Your task to perform on an android device: find photos in the google photos app Image 0: 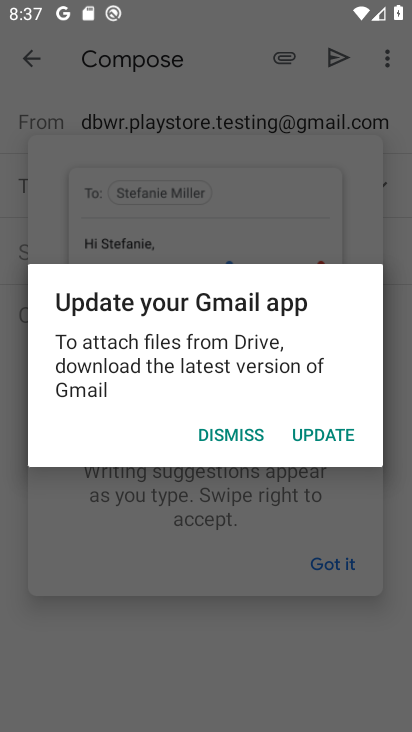
Step 0: click (218, 426)
Your task to perform on an android device: find photos in the google photos app Image 1: 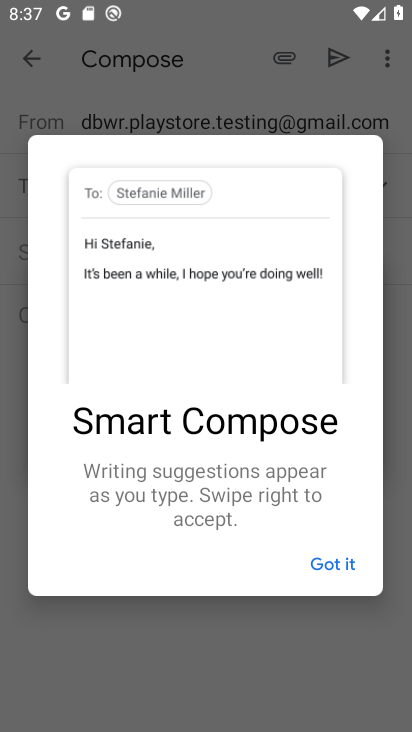
Step 1: press back button
Your task to perform on an android device: find photos in the google photos app Image 2: 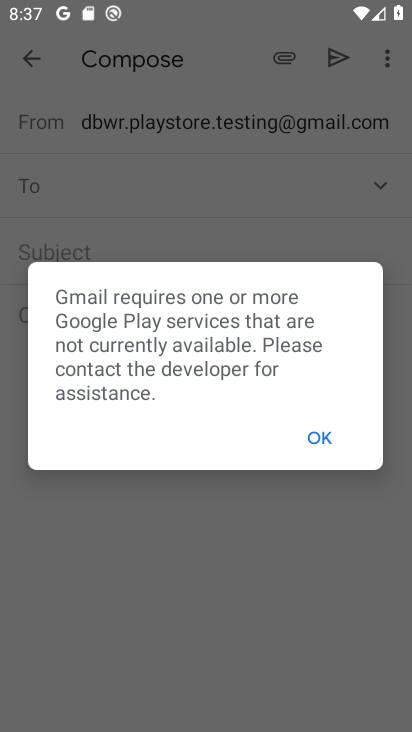
Step 2: click (331, 438)
Your task to perform on an android device: find photos in the google photos app Image 3: 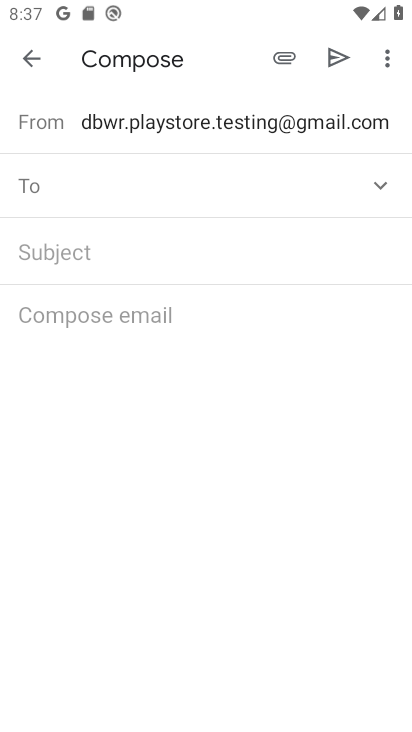
Step 3: press back button
Your task to perform on an android device: find photos in the google photos app Image 4: 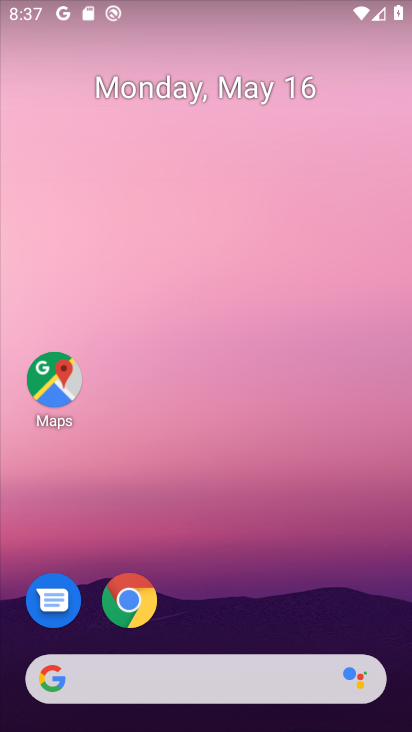
Step 4: drag from (286, 644) to (202, 246)
Your task to perform on an android device: find photos in the google photos app Image 5: 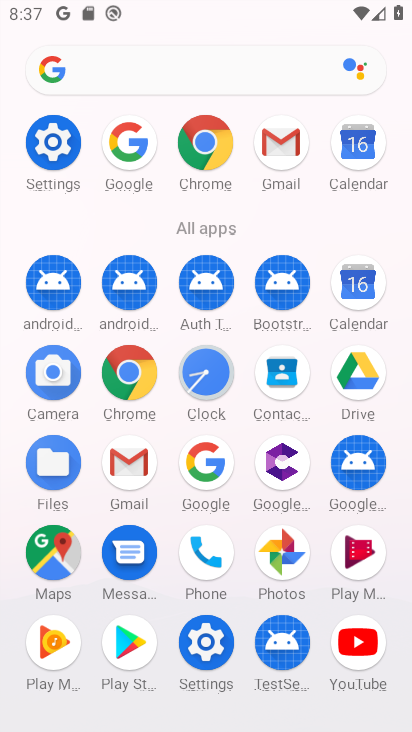
Step 5: click (293, 564)
Your task to perform on an android device: find photos in the google photos app Image 6: 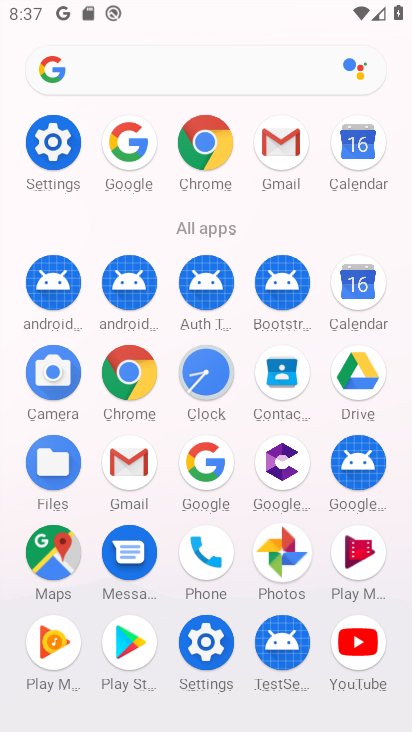
Step 6: click (293, 564)
Your task to perform on an android device: find photos in the google photos app Image 7: 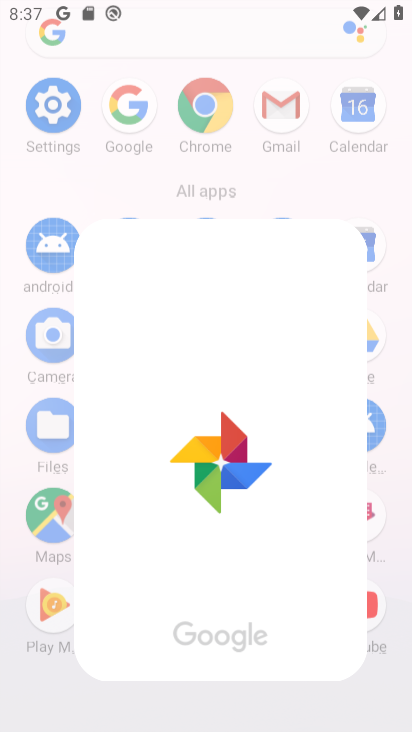
Step 7: click (293, 564)
Your task to perform on an android device: find photos in the google photos app Image 8: 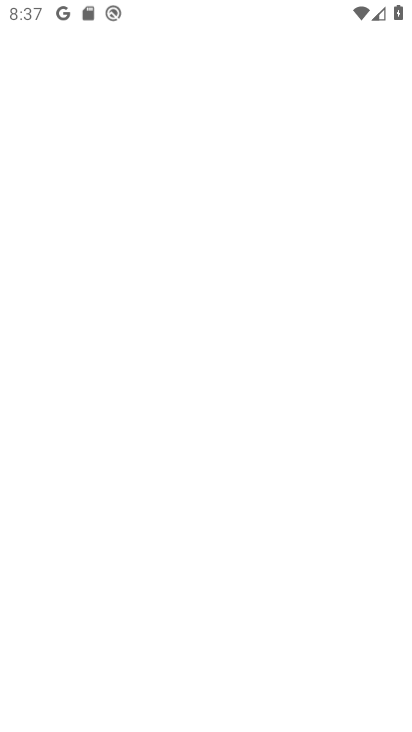
Step 8: click (293, 561)
Your task to perform on an android device: find photos in the google photos app Image 9: 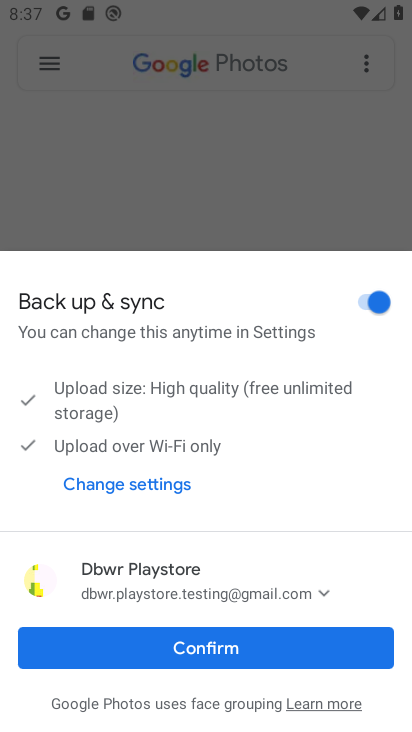
Step 9: click (207, 650)
Your task to perform on an android device: find photos in the google photos app Image 10: 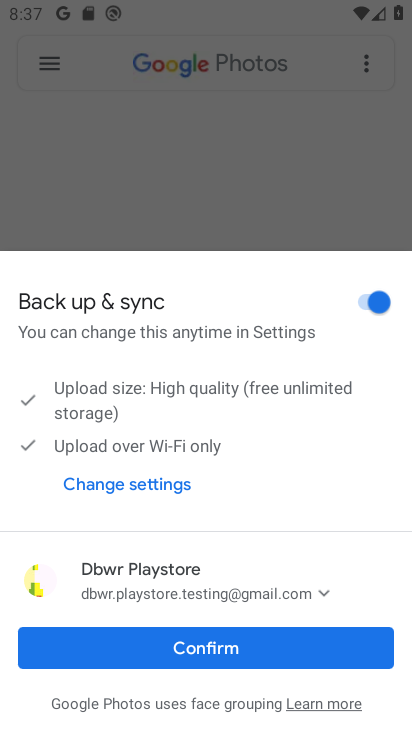
Step 10: click (207, 650)
Your task to perform on an android device: find photos in the google photos app Image 11: 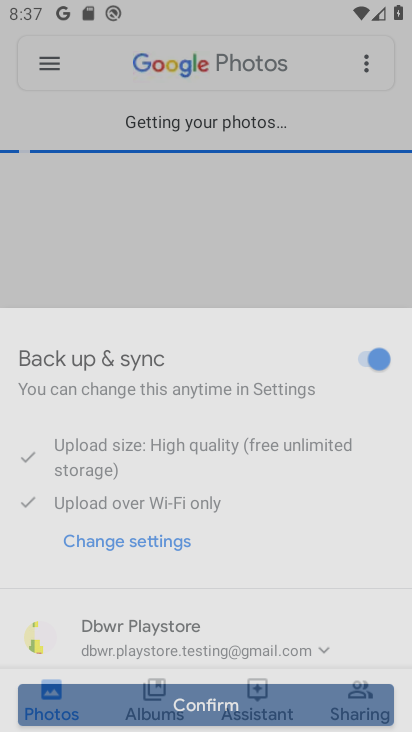
Step 11: click (207, 649)
Your task to perform on an android device: find photos in the google photos app Image 12: 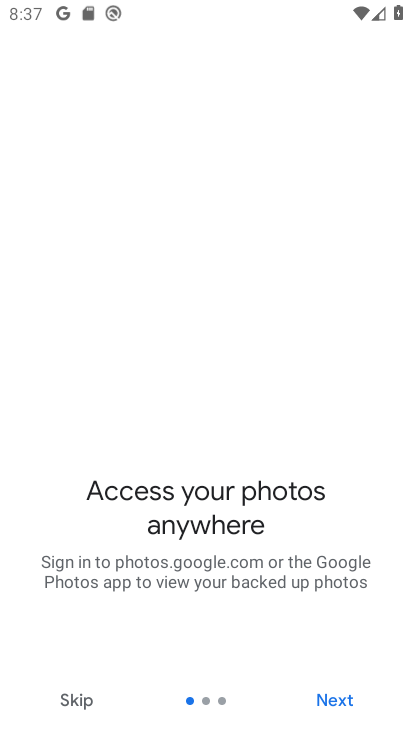
Step 12: click (357, 703)
Your task to perform on an android device: find photos in the google photos app Image 13: 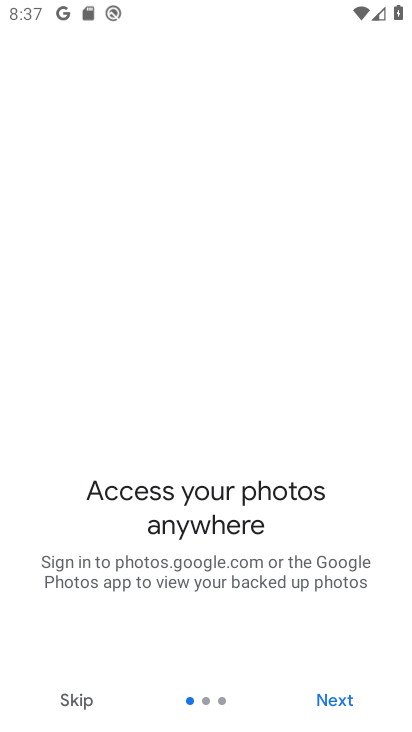
Step 13: click (360, 683)
Your task to perform on an android device: find photos in the google photos app Image 14: 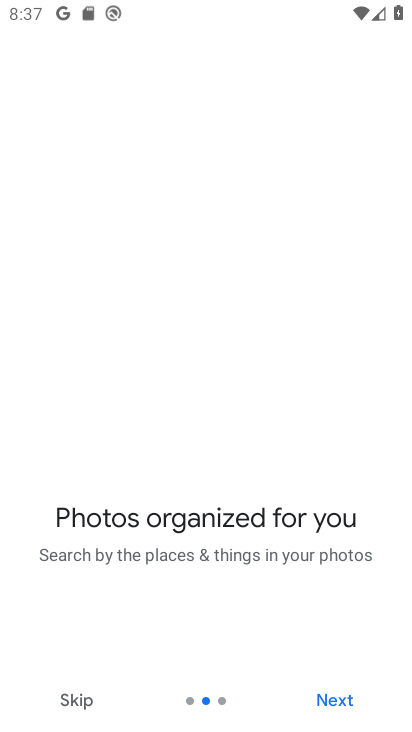
Step 14: click (349, 673)
Your task to perform on an android device: find photos in the google photos app Image 15: 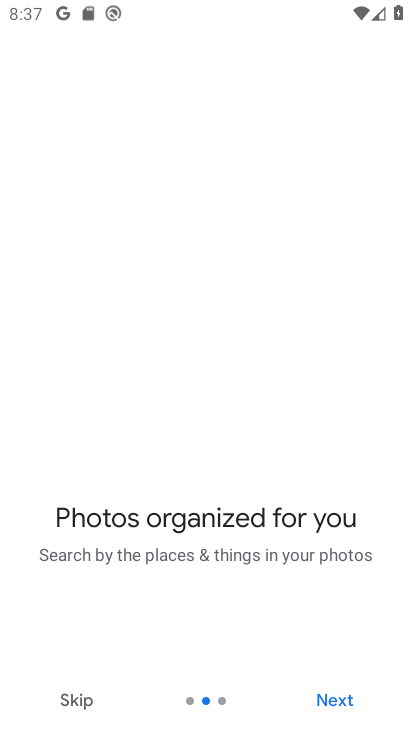
Step 15: drag from (276, 608) to (169, 30)
Your task to perform on an android device: find photos in the google photos app Image 16: 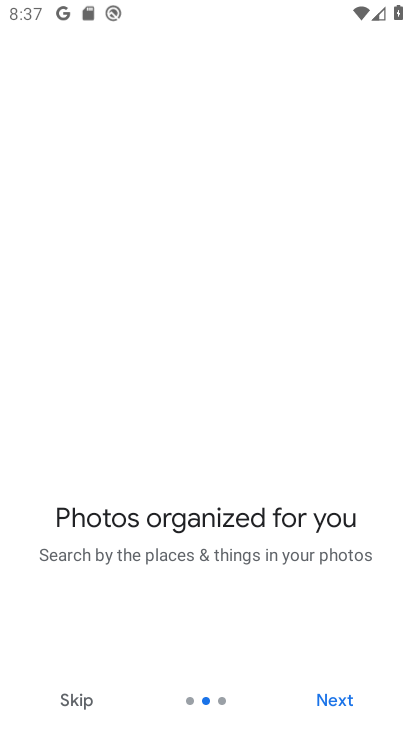
Step 16: click (325, 690)
Your task to perform on an android device: find photos in the google photos app Image 17: 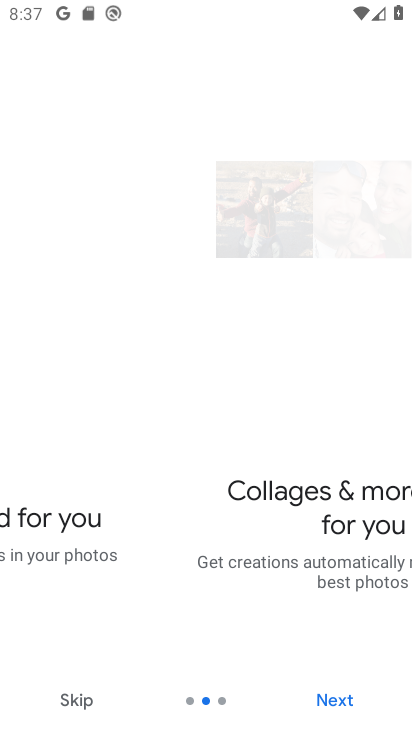
Step 17: click (327, 690)
Your task to perform on an android device: find photos in the google photos app Image 18: 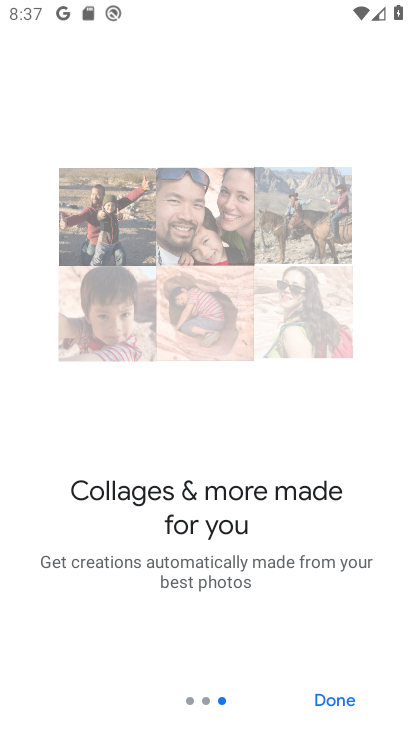
Step 18: click (327, 690)
Your task to perform on an android device: find photos in the google photos app Image 19: 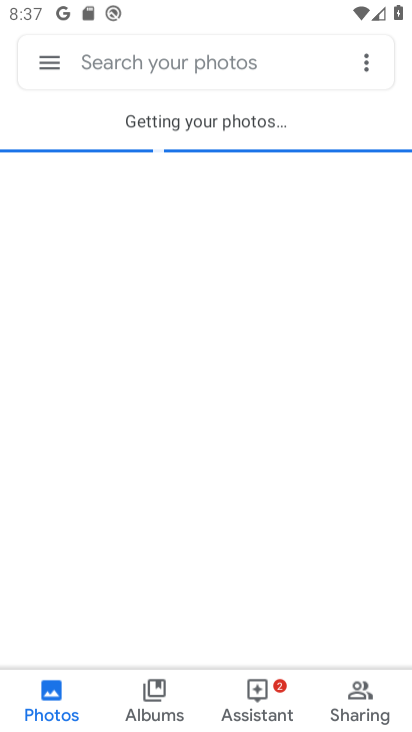
Step 19: task complete